Your task to perform on an android device: Open Google Chrome Image 0: 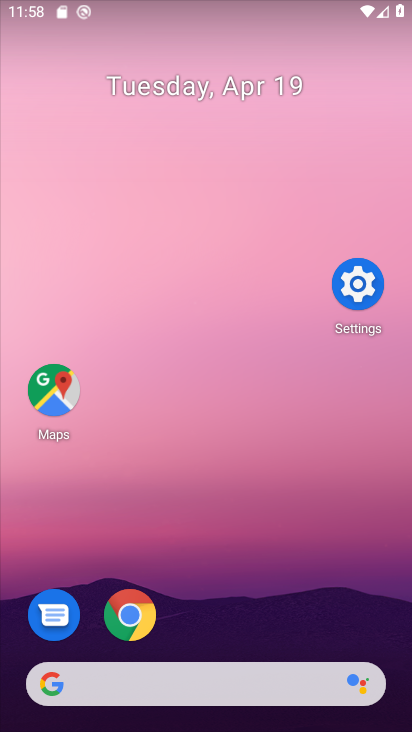
Step 0: drag from (182, 601) to (288, 157)
Your task to perform on an android device: Open Google Chrome Image 1: 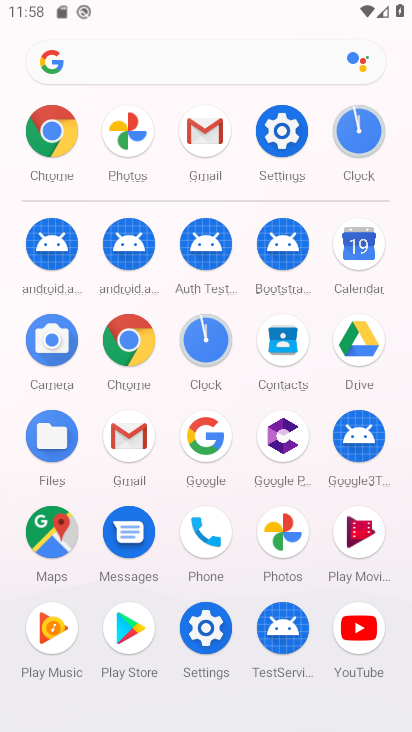
Step 1: click (123, 346)
Your task to perform on an android device: Open Google Chrome Image 2: 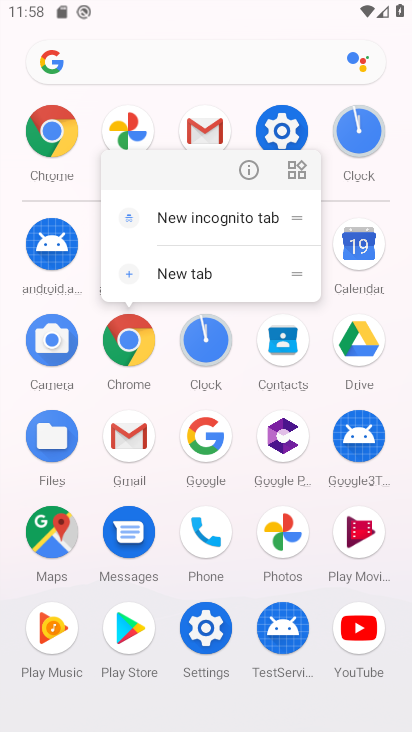
Step 2: click (236, 174)
Your task to perform on an android device: Open Google Chrome Image 3: 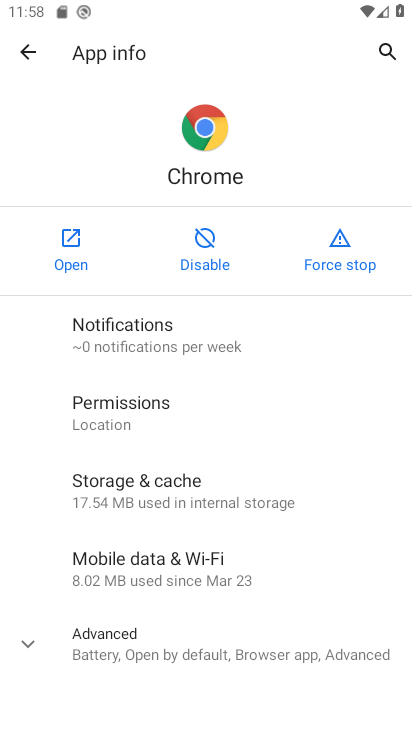
Step 3: click (77, 244)
Your task to perform on an android device: Open Google Chrome Image 4: 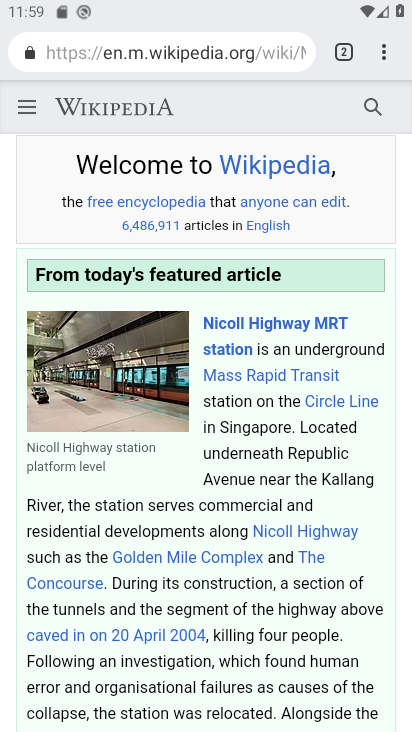
Step 4: click (411, 611)
Your task to perform on an android device: Open Google Chrome Image 5: 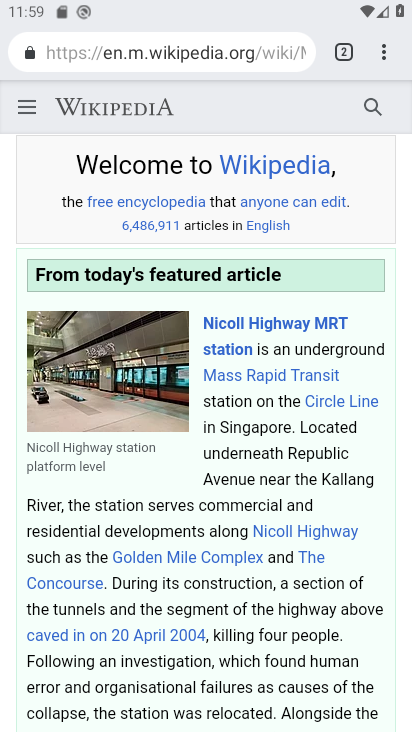
Step 5: task complete